Your task to perform on an android device: empty trash in google photos Image 0: 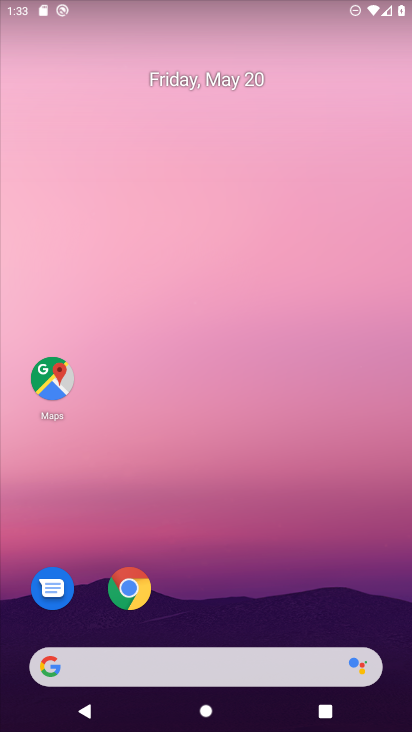
Step 0: drag from (384, 622) to (325, 13)
Your task to perform on an android device: empty trash in google photos Image 1: 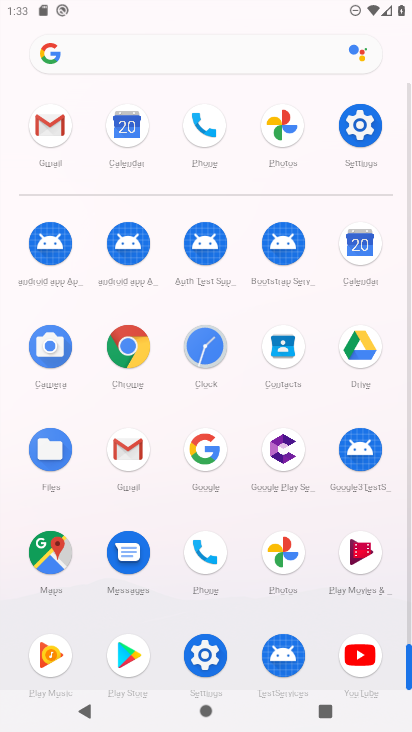
Step 1: click (285, 551)
Your task to perform on an android device: empty trash in google photos Image 2: 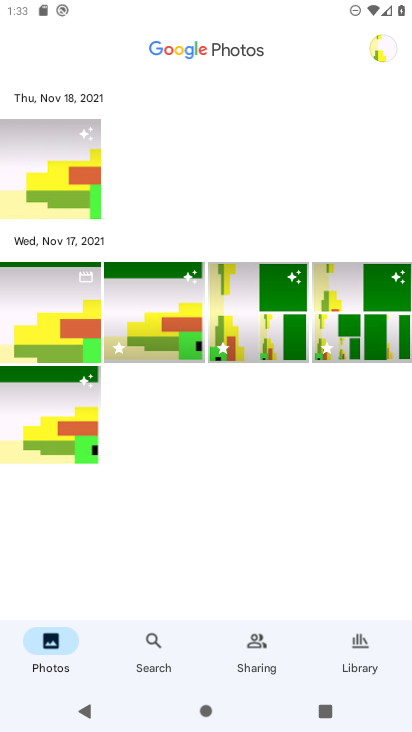
Step 2: click (355, 644)
Your task to perform on an android device: empty trash in google photos Image 3: 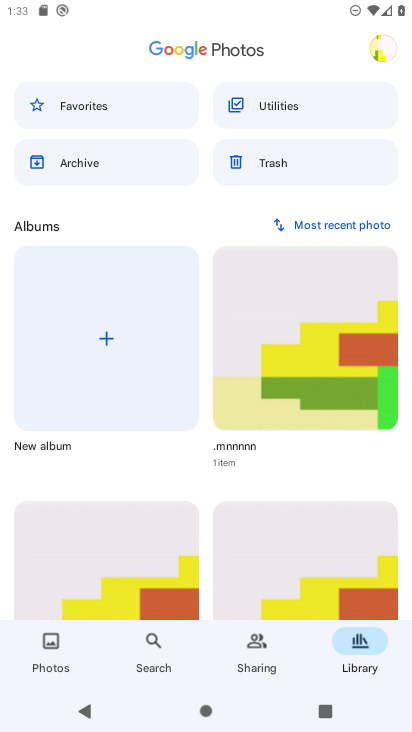
Step 3: click (261, 163)
Your task to perform on an android device: empty trash in google photos Image 4: 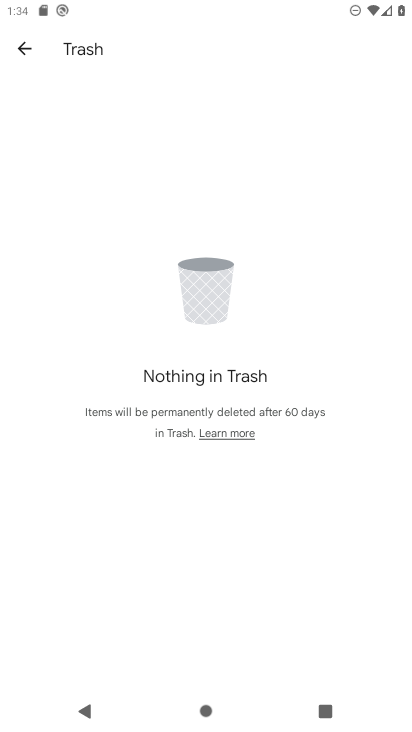
Step 4: task complete